Your task to perform on an android device: Add "jbl flip 4" to the cart on walmart.com, then select checkout. Image 0: 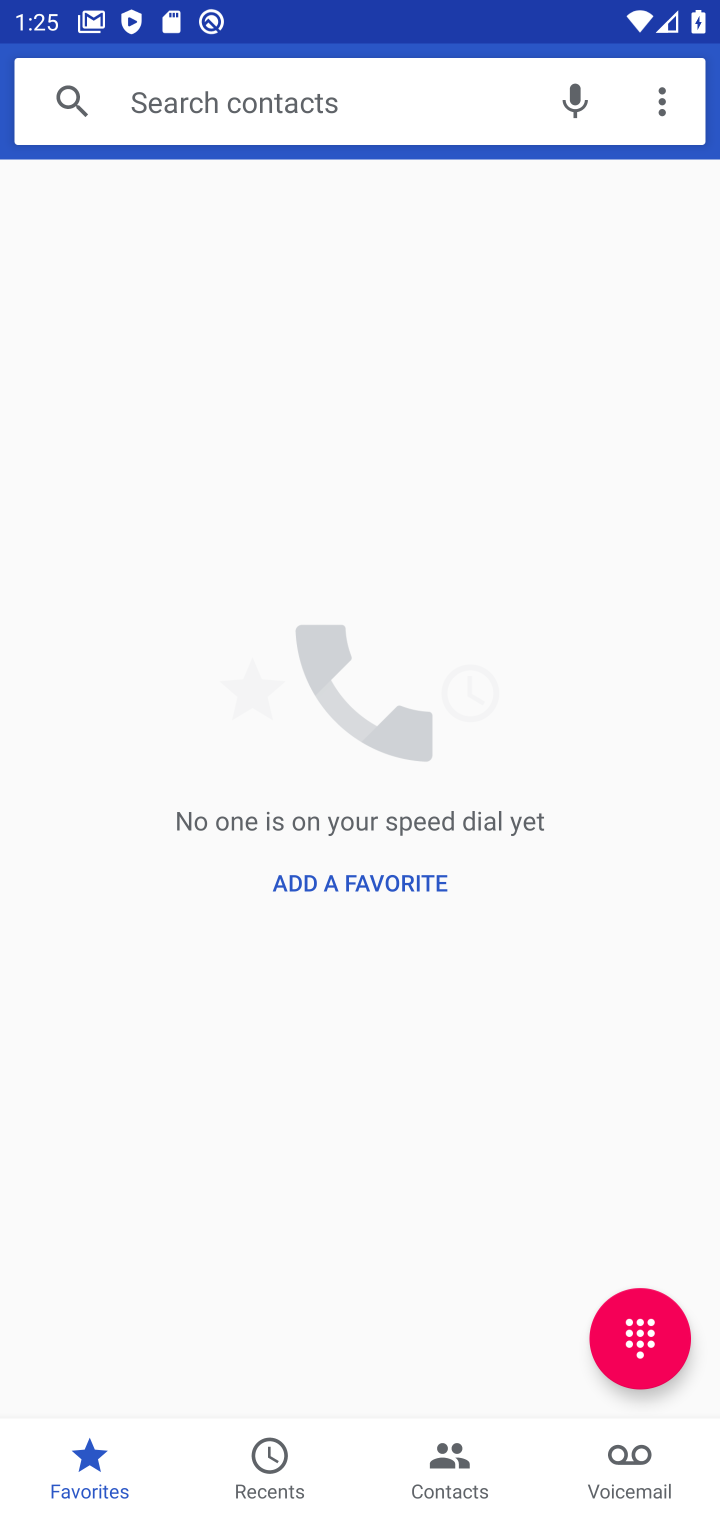
Step 0: press home button
Your task to perform on an android device: Add "jbl flip 4" to the cart on walmart.com, then select checkout. Image 1: 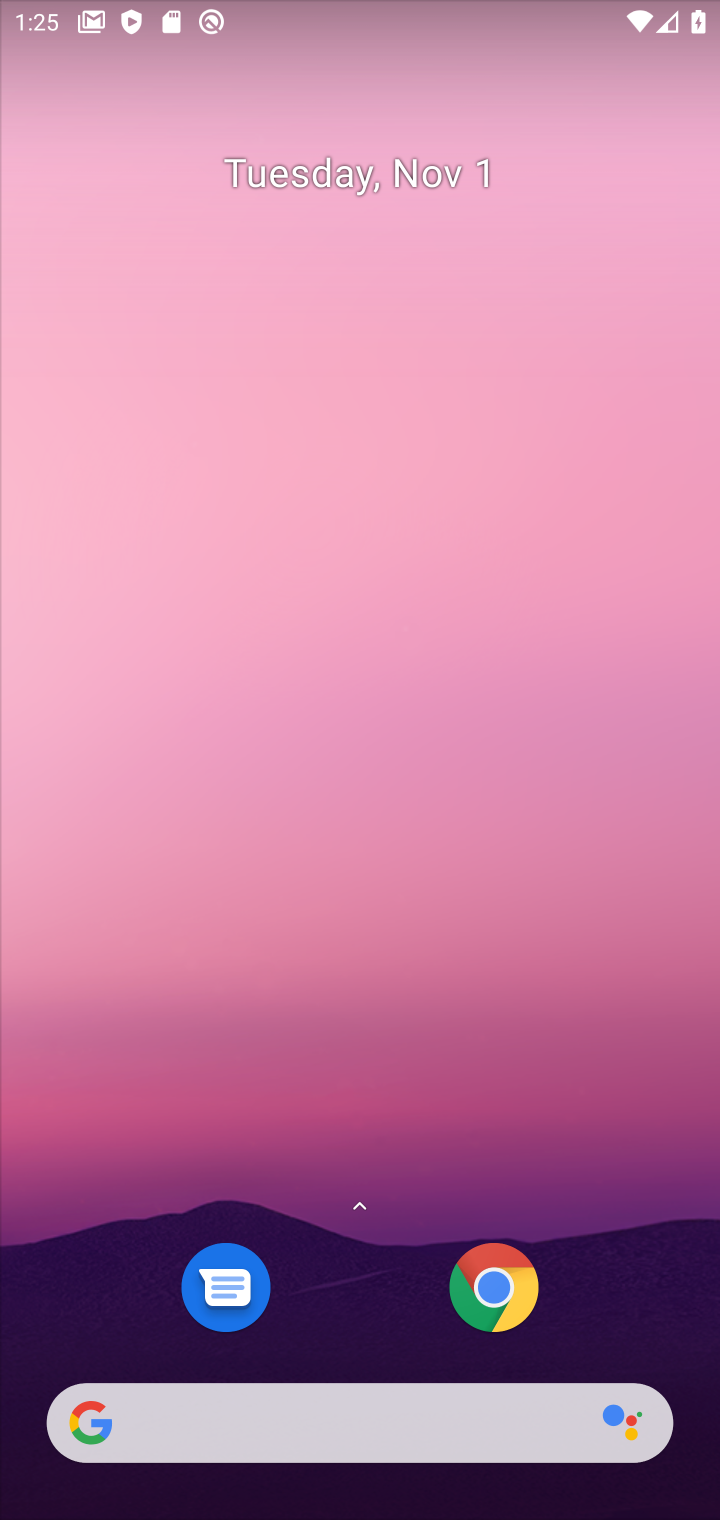
Step 1: drag from (321, 1306) to (365, 290)
Your task to perform on an android device: Add "jbl flip 4" to the cart on walmart.com, then select checkout. Image 2: 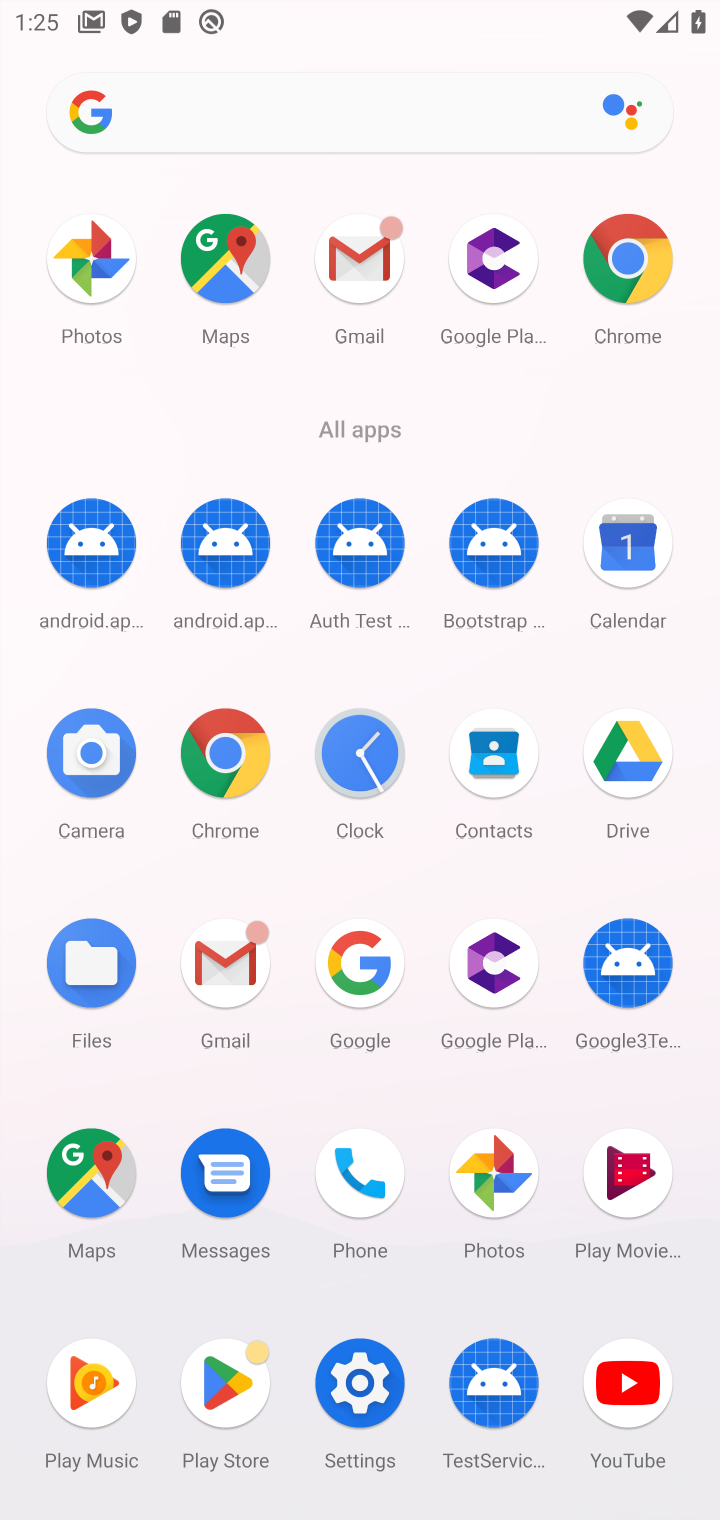
Step 2: click (234, 758)
Your task to perform on an android device: Add "jbl flip 4" to the cart on walmart.com, then select checkout. Image 3: 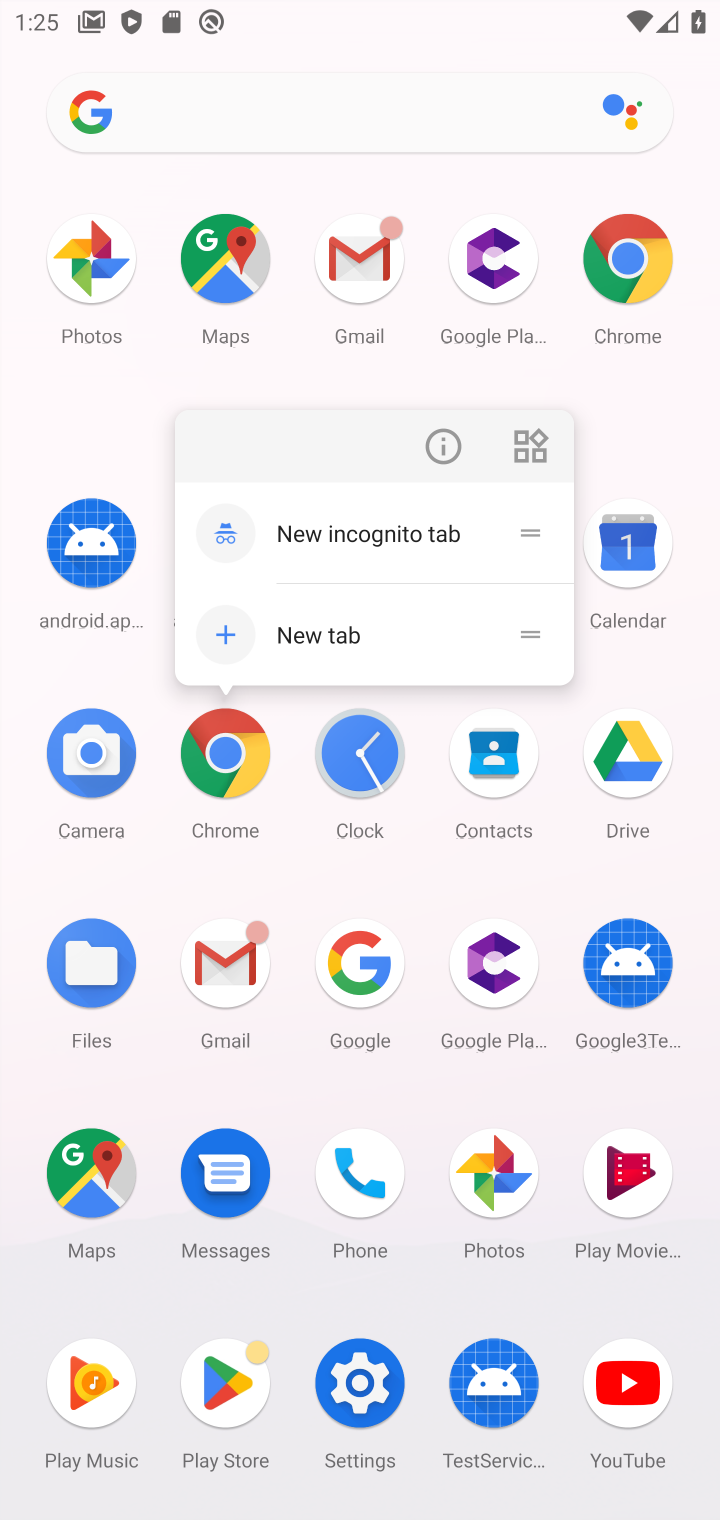
Step 3: click (224, 759)
Your task to perform on an android device: Add "jbl flip 4" to the cart on walmart.com, then select checkout. Image 4: 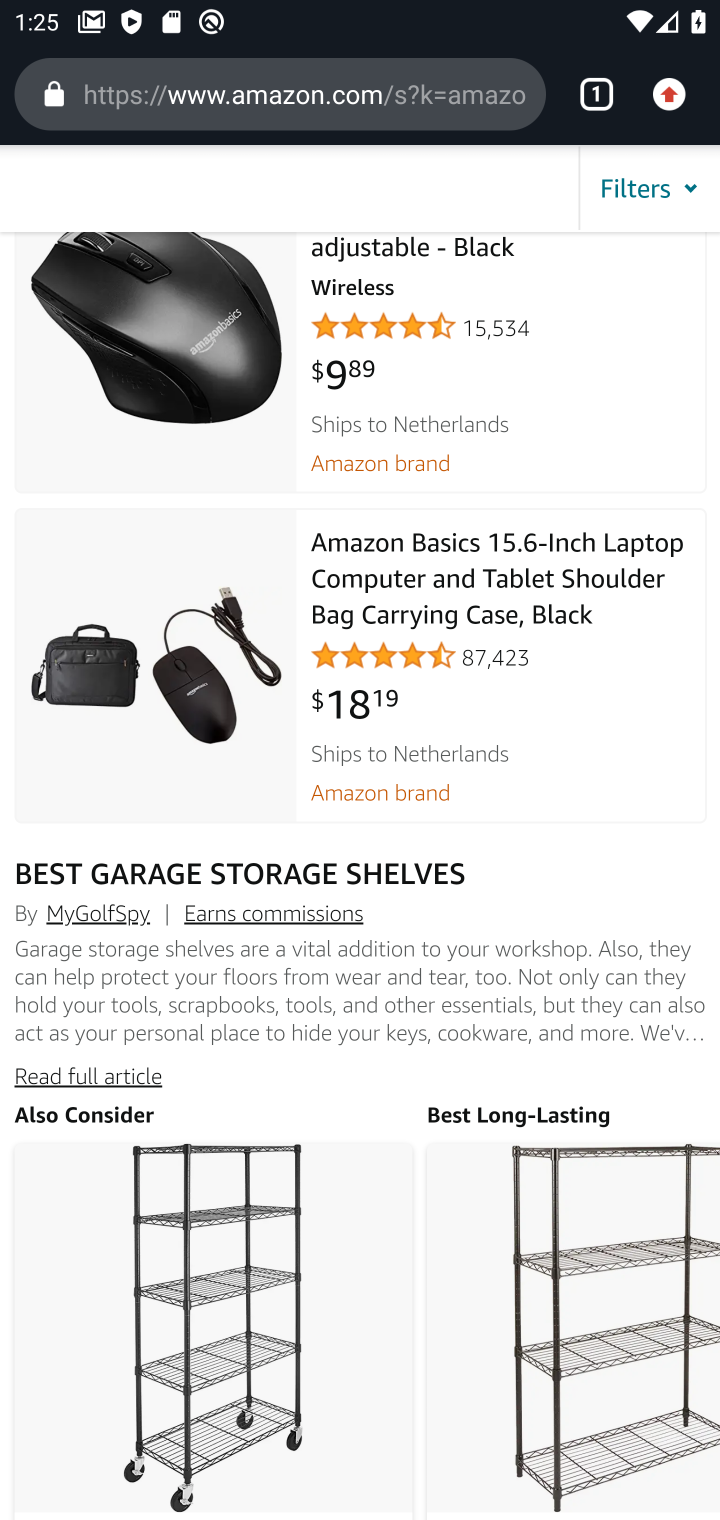
Step 4: click (328, 99)
Your task to perform on an android device: Add "jbl flip 4" to the cart on walmart.com, then select checkout. Image 5: 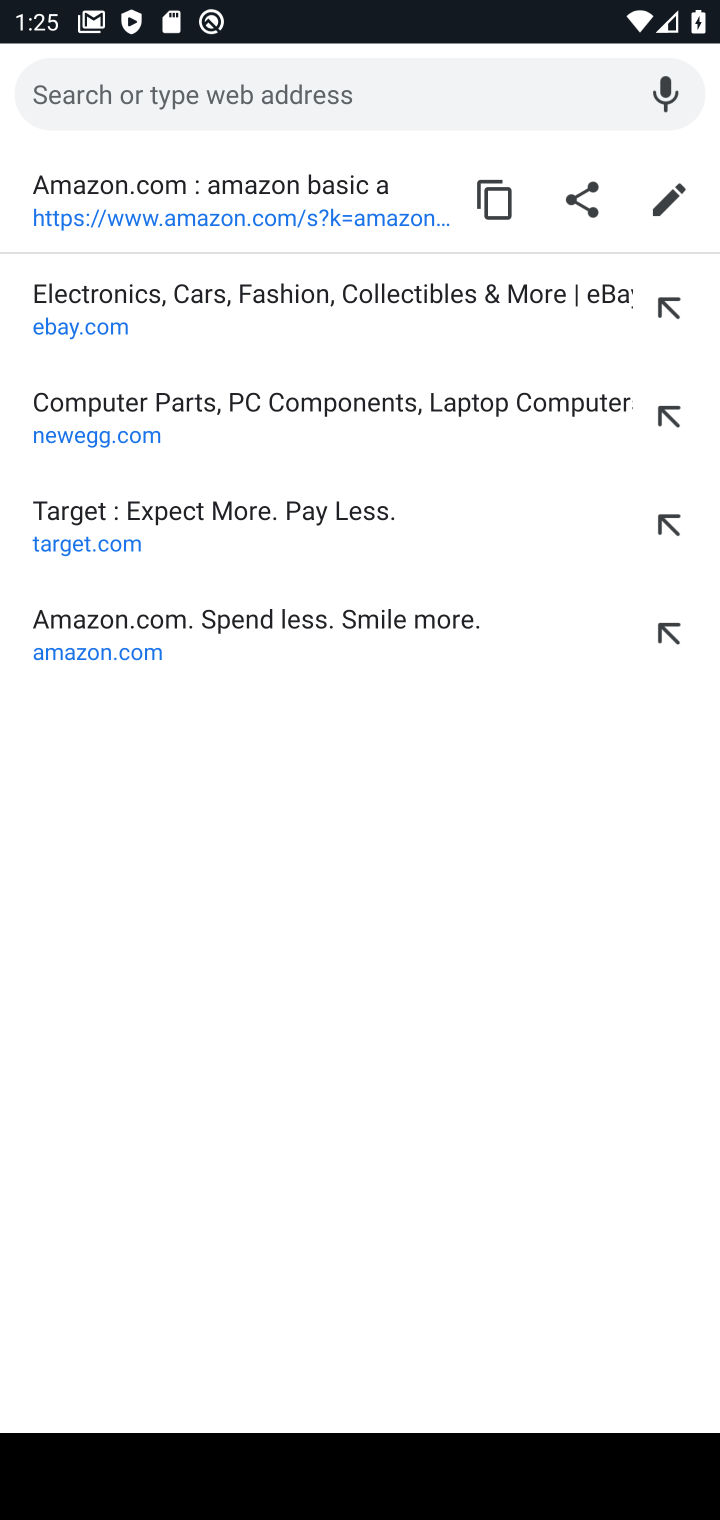
Step 5: type "walmart.com"
Your task to perform on an android device: Add "jbl flip 4" to the cart on walmart.com, then select checkout. Image 6: 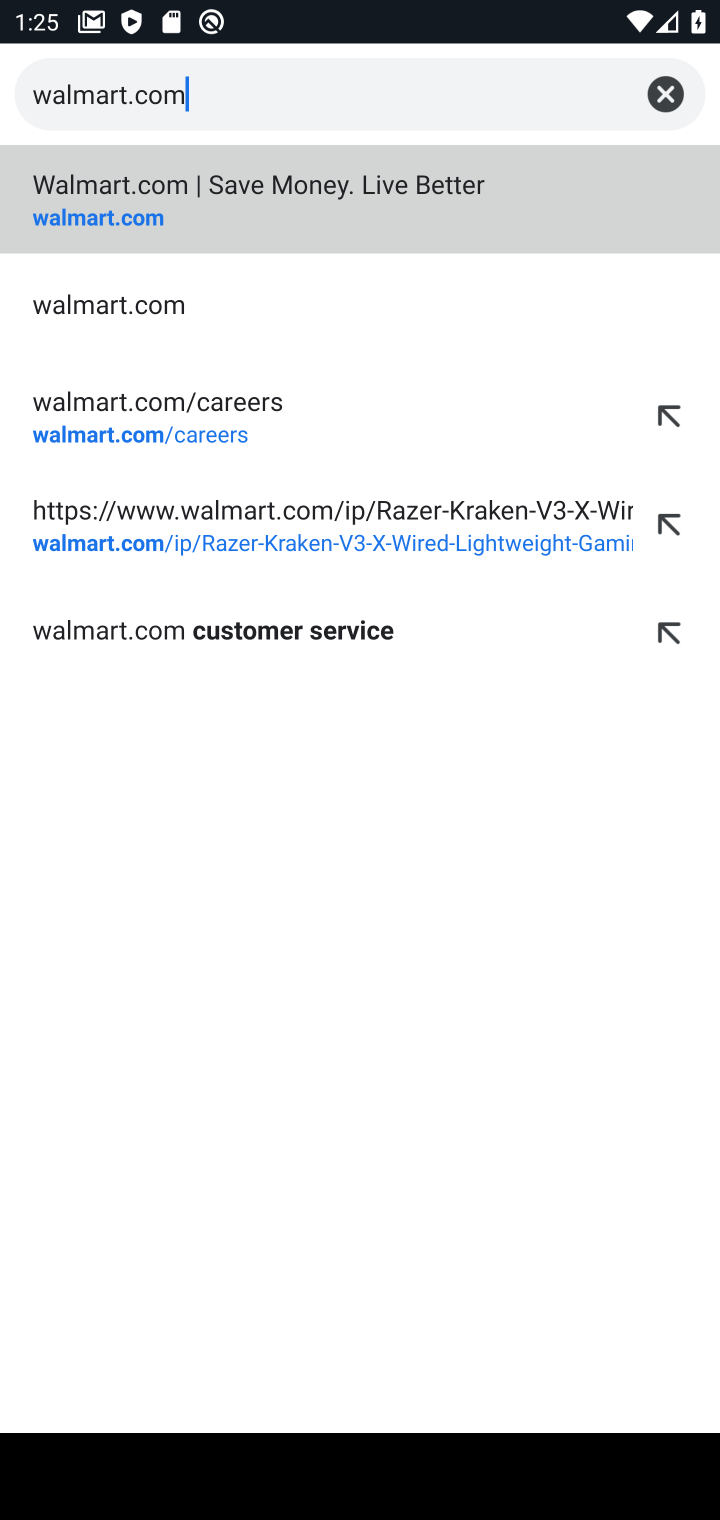
Step 6: press enter
Your task to perform on an android device: Add "jbl flip 4" to the cart on walmart.com, then select checkout. Image 7: 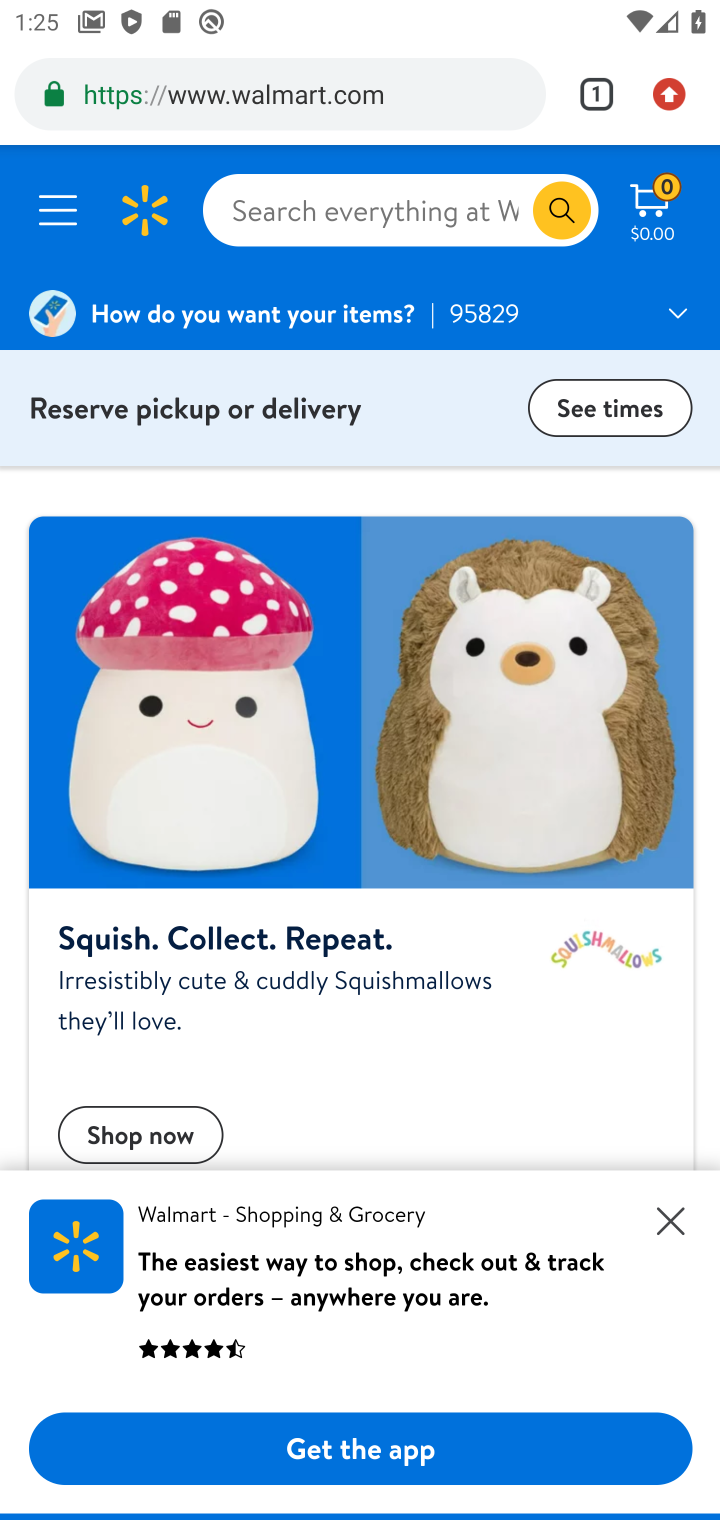
Step 7: click (441, 214)
Your task to perform on an android device: Add "jbl flip 4" to the cart on walmart.com, then select checkout. Image 8: 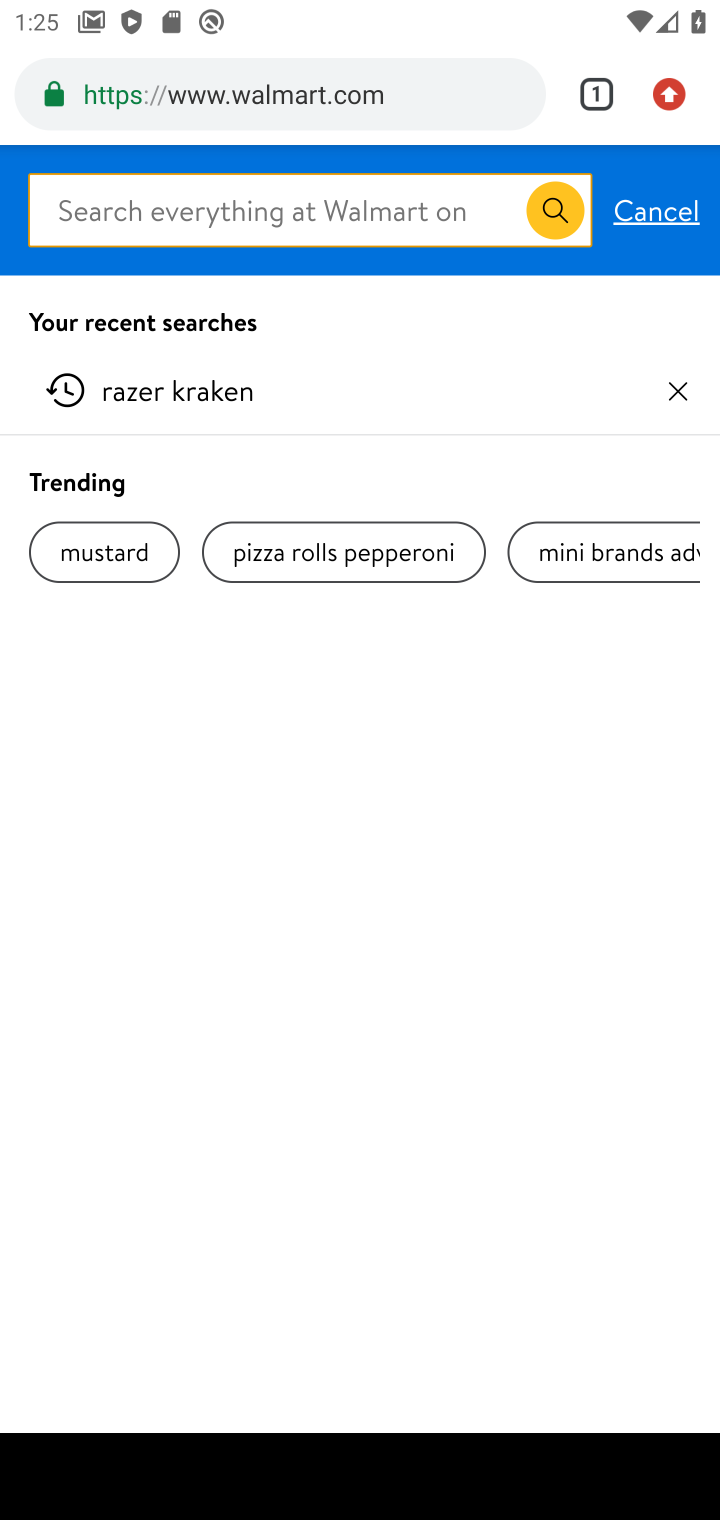
Step 8: type "jbl flip 4"
Your task to perform on an android device: Add "jbl flip 4" to the cart on walmart.com, then select checkout. Image 9: 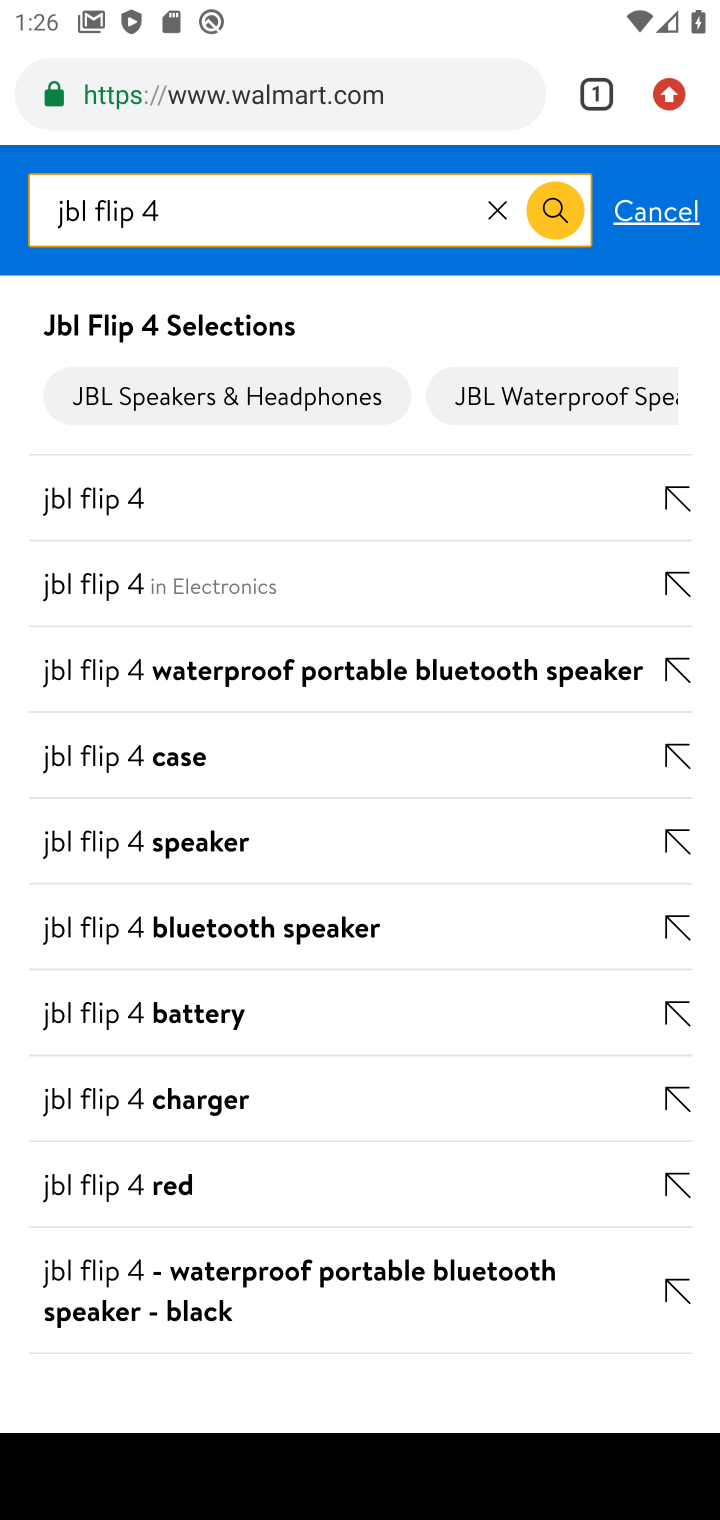
Step 9: press enter
Your task to perform on an android device: Add "jbl flip 4" to the cart on walmart.com, then select checkout. Image 10: 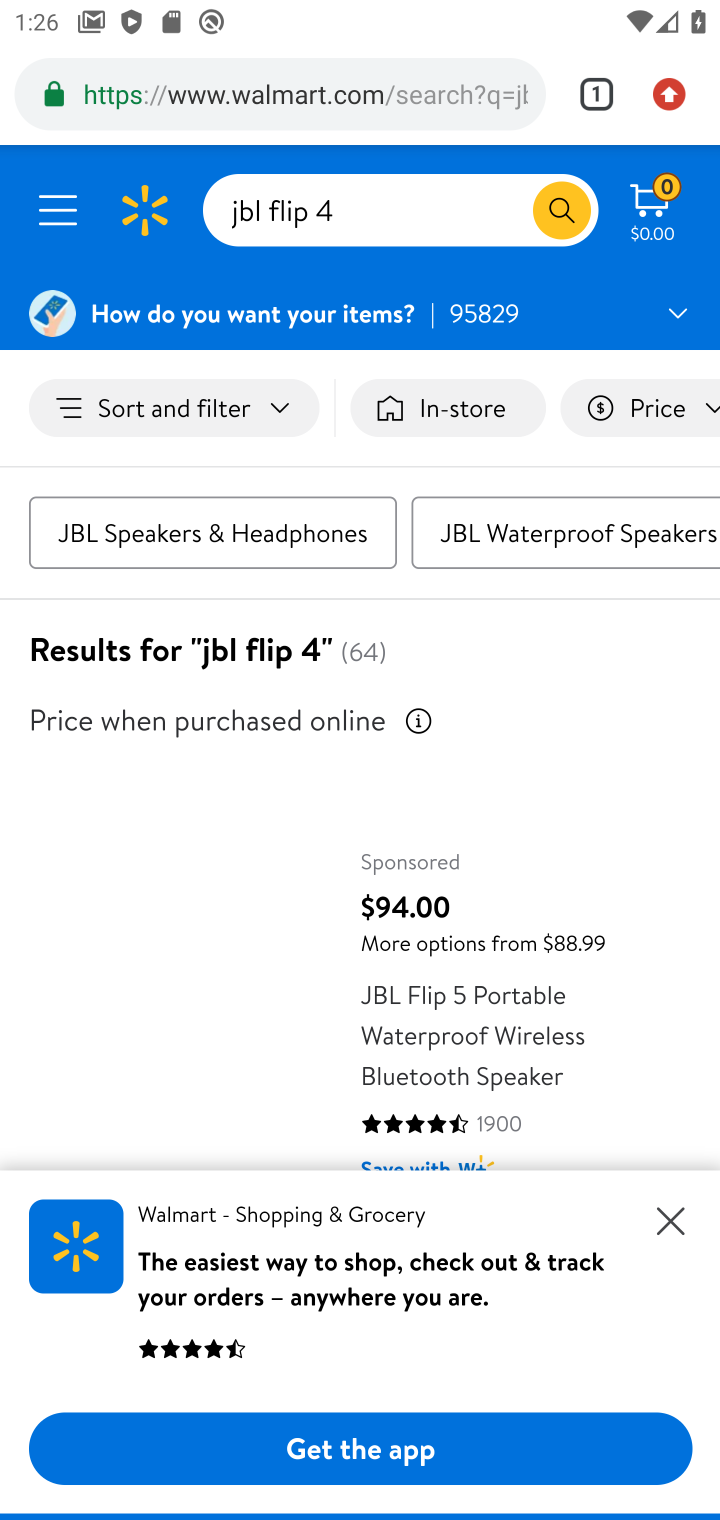
Step 10: drag from (454, 1028) to (472, 215)
Your task to perform on an android device: Add "jbl flip 4" to the cart on walmart.com, then select checkout. Image 11: 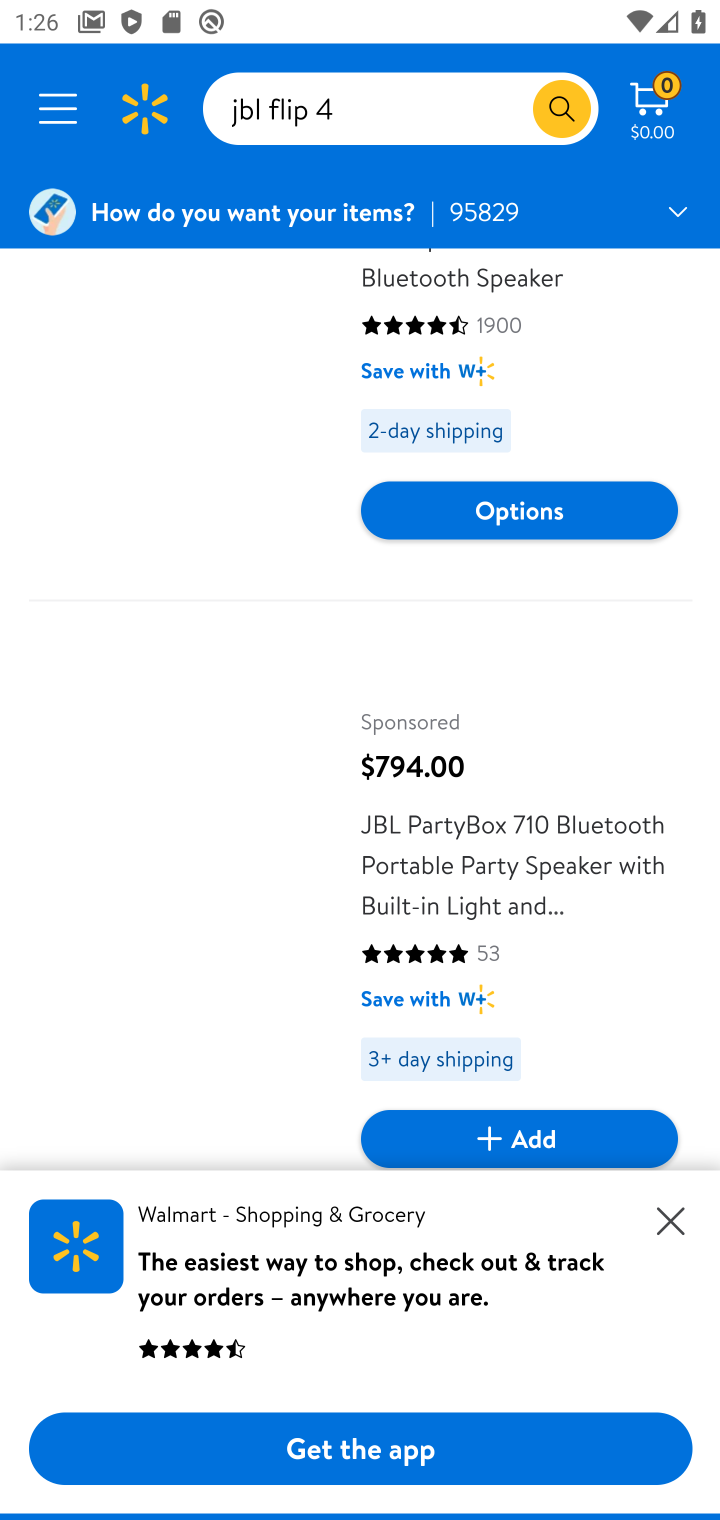
Step 11: drag from (503, 970) to (419, 332)
Your task to perform on an android device: Add "jbl flip 4" to the cart on walmart.com, then select checkout. Image 12: 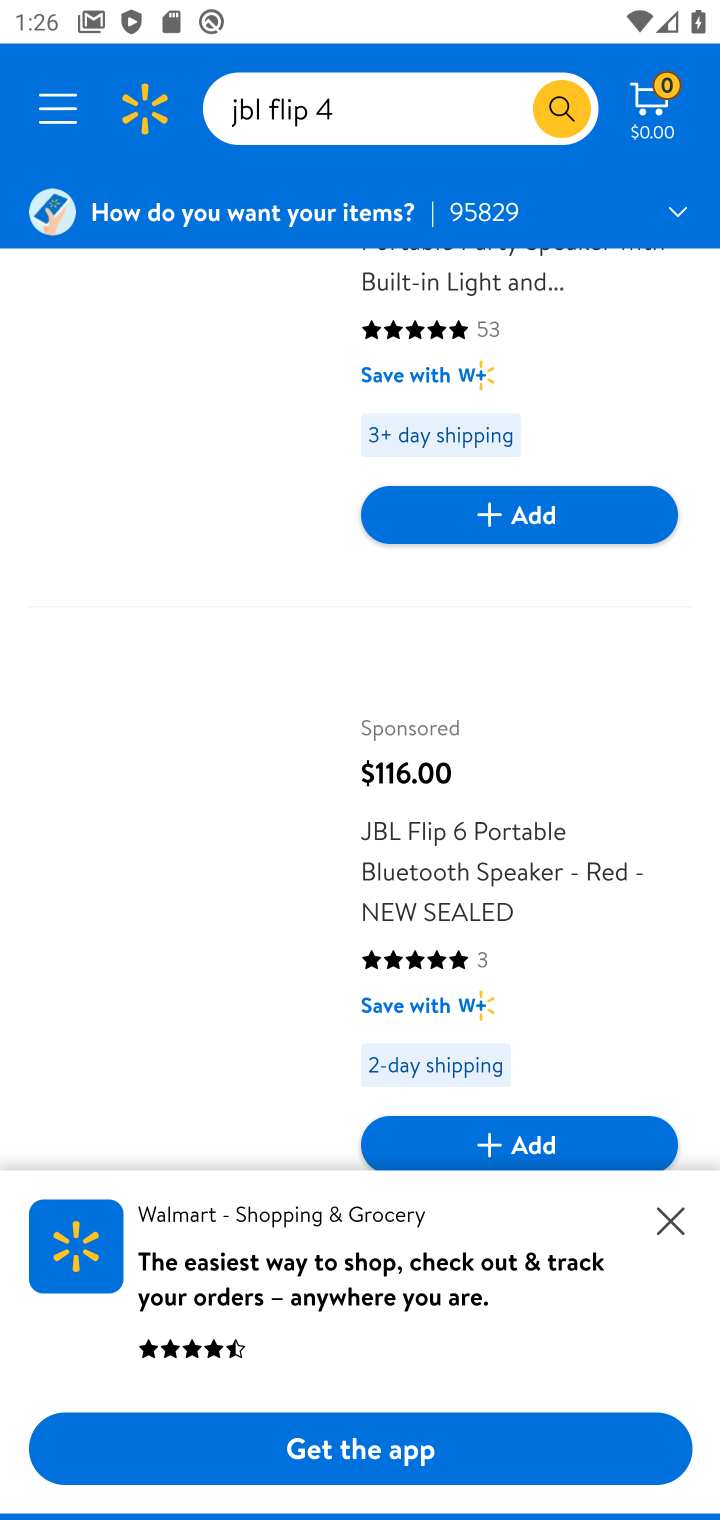
Step 12: drag from (468, 948) to (466, 326)
Your task to perform on an android device: Add "jbl flip 4" to the cart on walmart.com, then select checkout. Image 13: 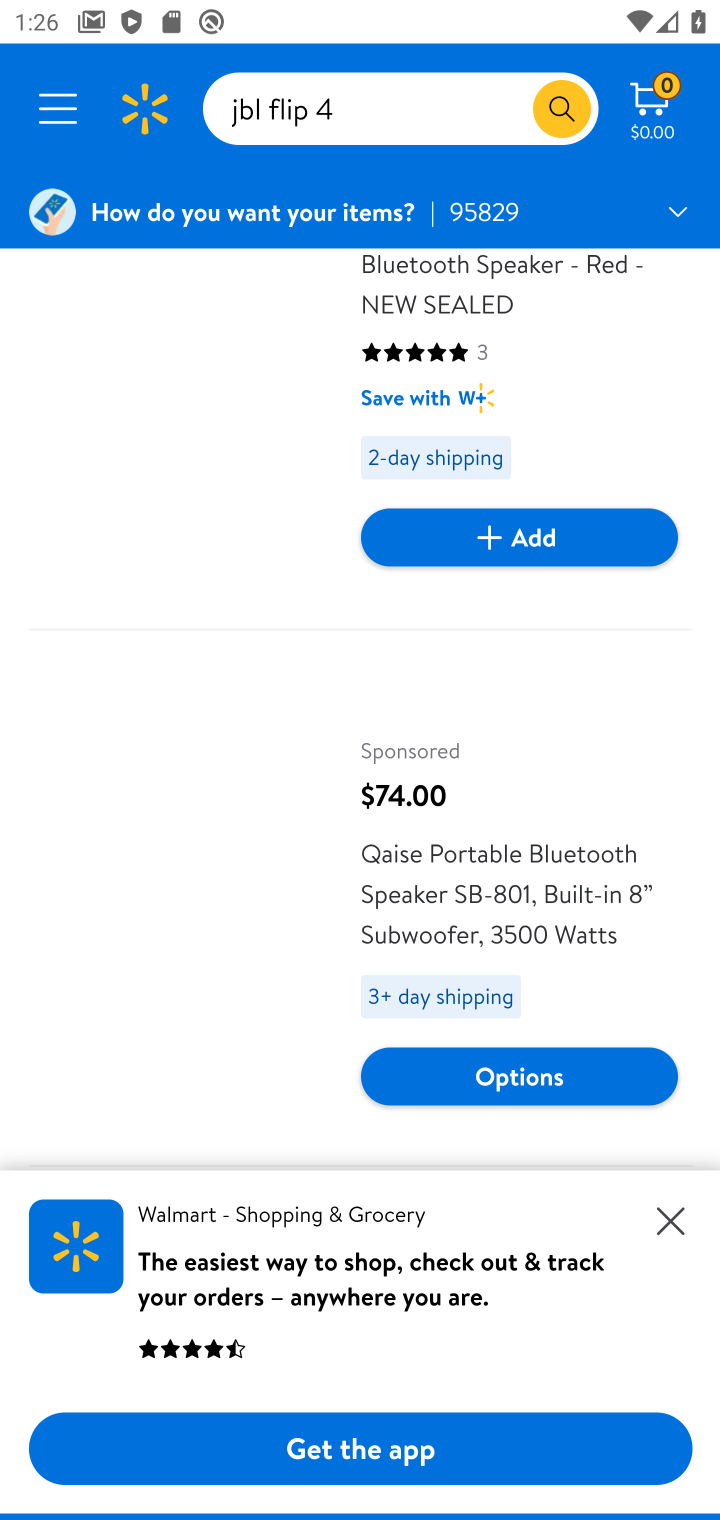
Step 13: drag from (530, 953) to (516, 30)
Your task to perform on an android device: Add "jbl flip 4" to the cart on walmart.com, then select checkout. Image 14: 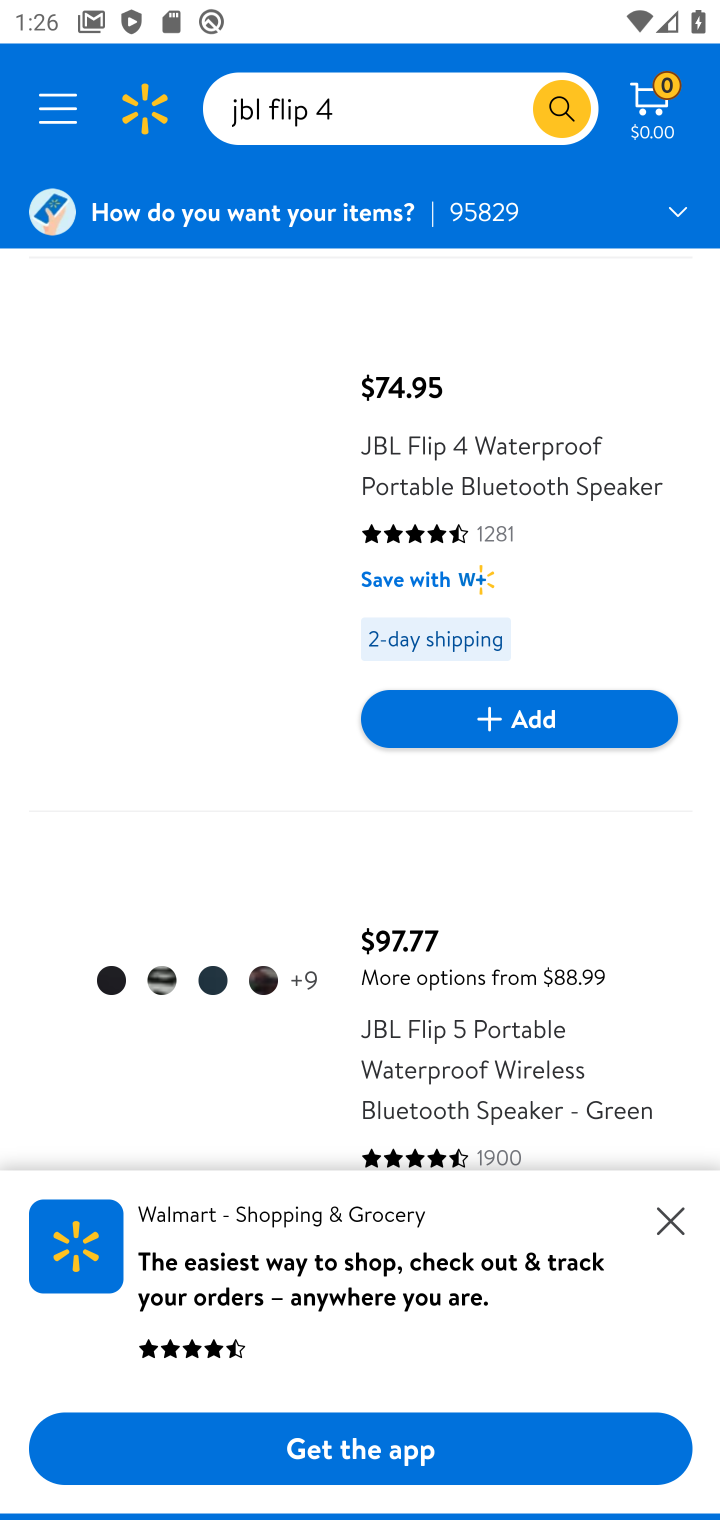
Step 14: drag from (490, 935) to (543, 120)
Your task to perform on an android device: Add "jbl flip 4" to the cart on walmart.com, then select checkout. Image 15: 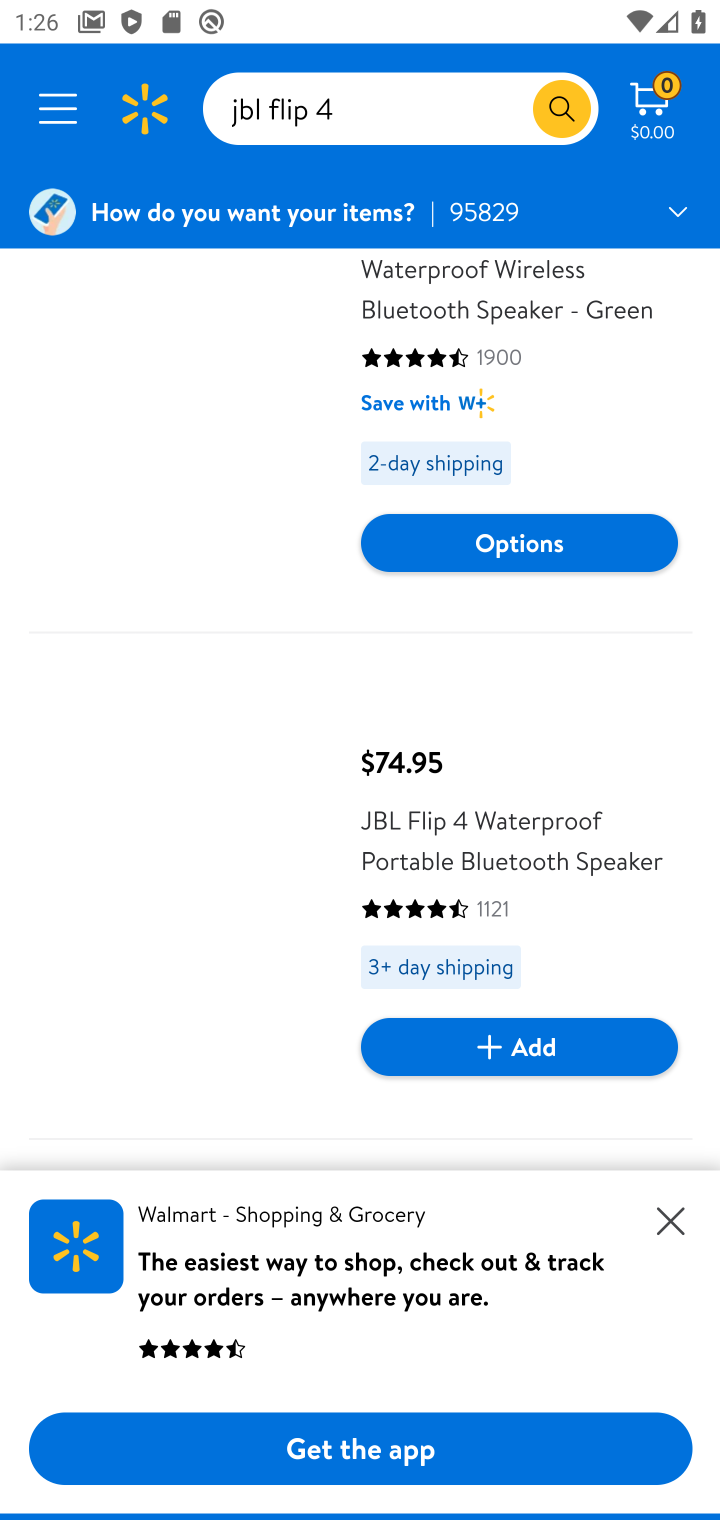
Step 15: click (550, 1042)
Your task to perform on an android device: Add "jbl flip 4" to the cart on walmart.com, then select checkout. Image 16: 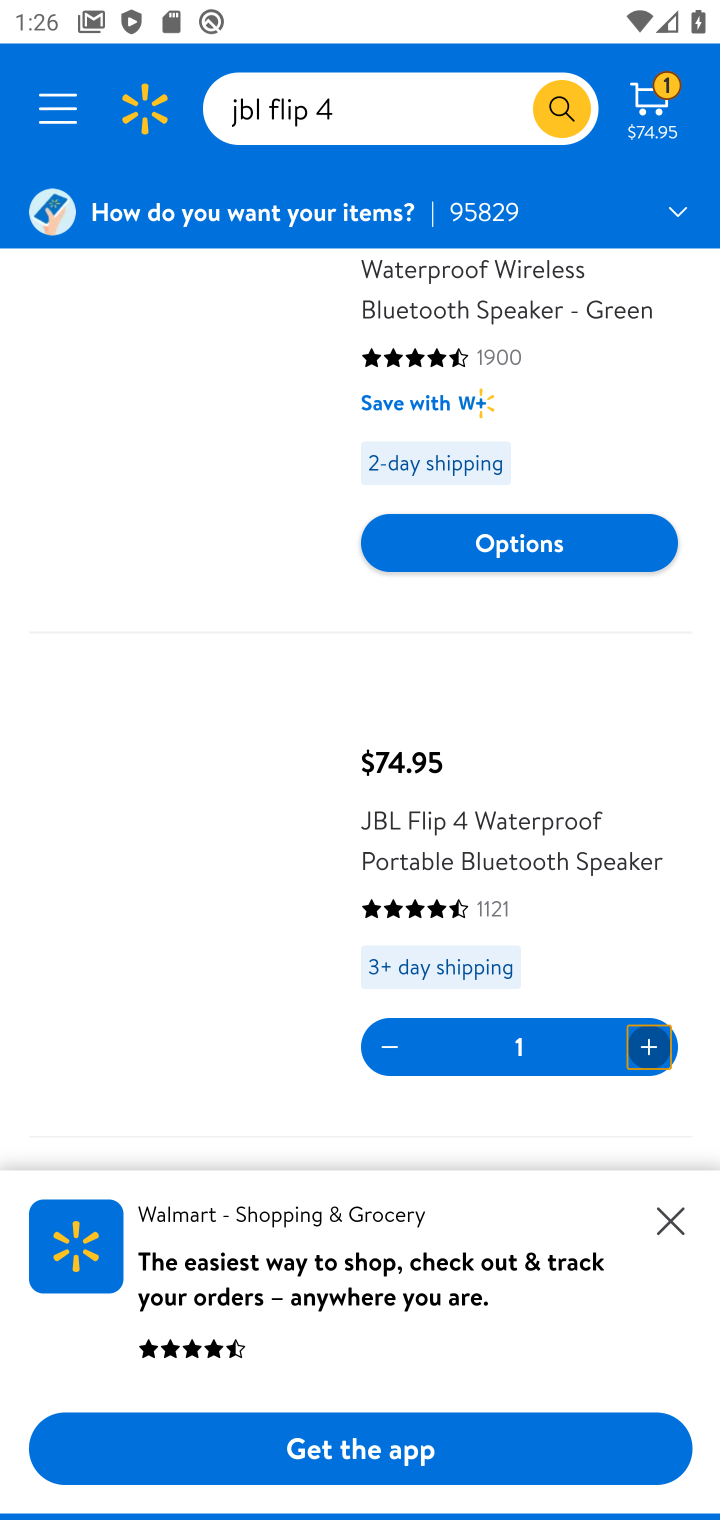
Step 16: click (656, 107)
Your task to perform on an android device: Add "jbl flip 4" to the cart on walmart.com, then select checkout. Image 17: 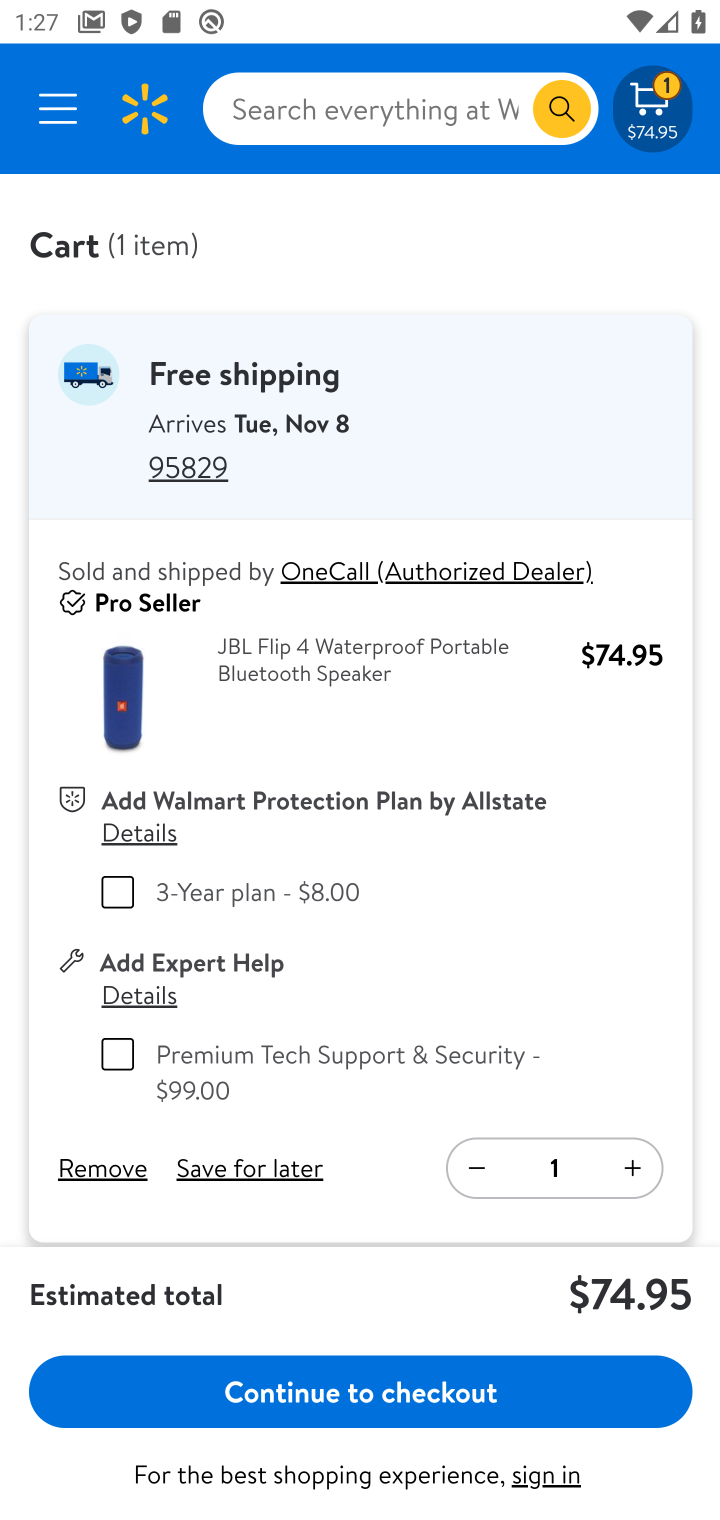
Step 17: click (466, 1401)
Your task to perform on an android device: Add "jbl flip 4" to the cart on walmart.com, then select checkout. Image 18: 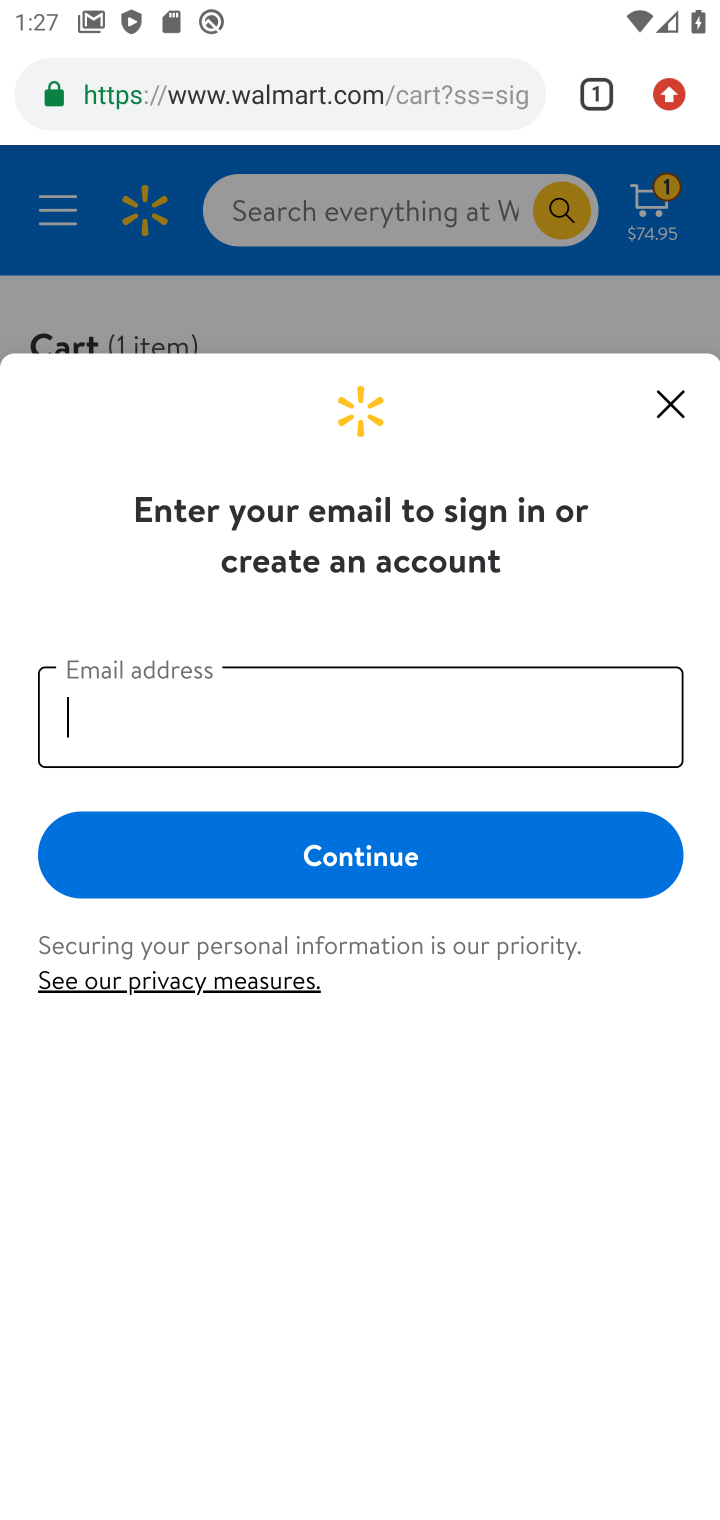
Step 18: task complete